Your task to perform on an android device: Open privacy settings Image 0: 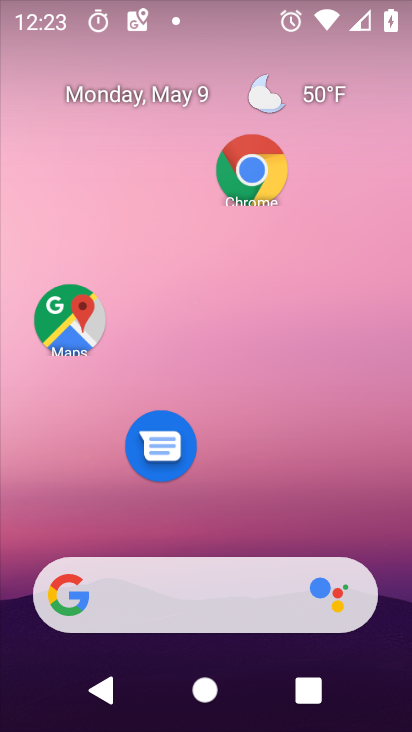
Step 0: click (239, 170)
Your task to perform on an android device: Open privacy settings Image 1: 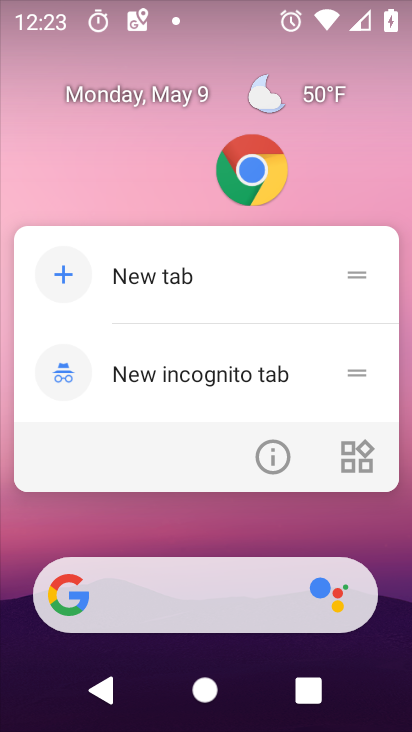
Step 1: click (239, 170)
Your task to perform on an android device: Open privacy settings Image 2: 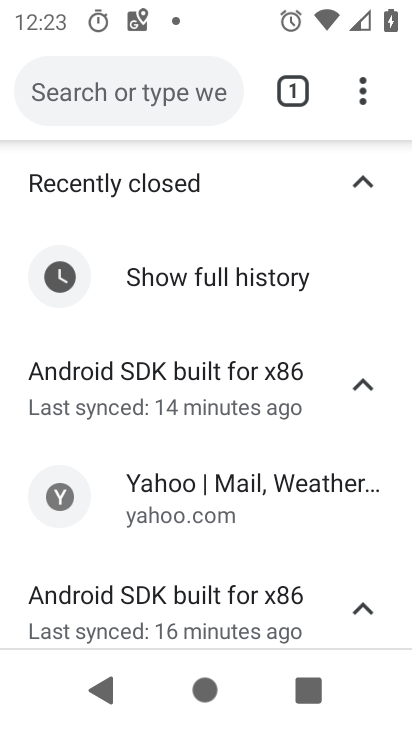
Step 2: click (344, 98)
Your task to perform on an android device: Open privacy settings Image 3: 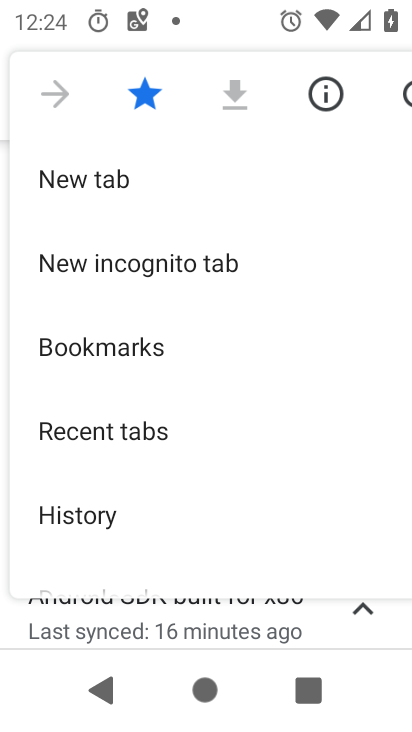
Step 3: drag from (129, 538) to (108, 368)
Your task to perform on an android device: Open privacy settings Image 4: 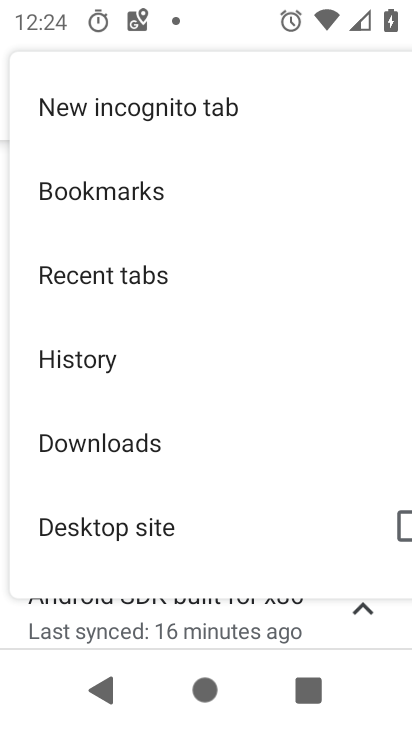
Step 4: drag from (189, 534) to (201, 271)
Your task to perform on an android device: Open privacy settings Image 5: 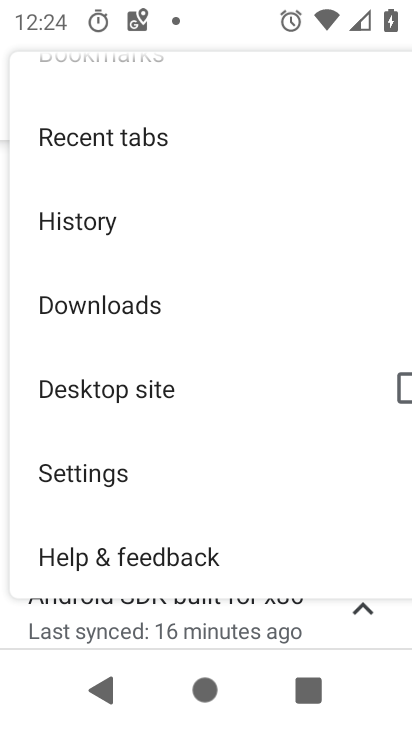
Step 5: click (101, 465)
Your task to perform on an android device: Open privacy settings Image 6: 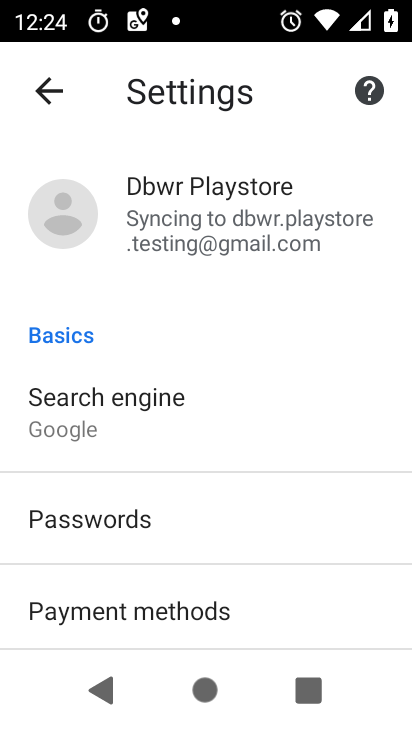
Step 6: drag from (197, 594) to (159, 344)
Your task to perform on an android device: Open privacy settings Image 7: 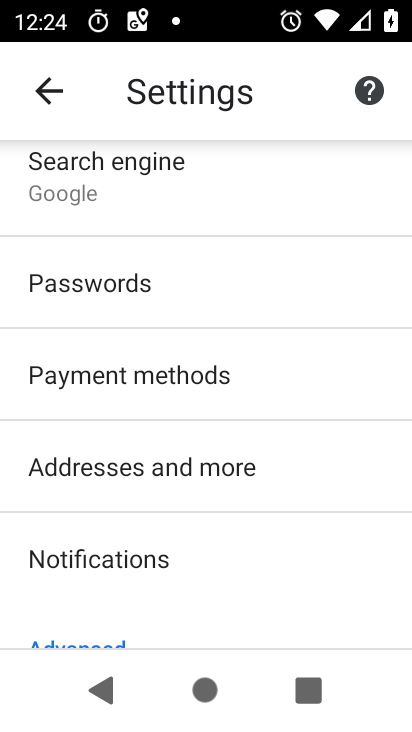
Step 7: drag from (158, 595) to (148, 440)
Your task to perform on an android device: Open privacy settings Image 8: 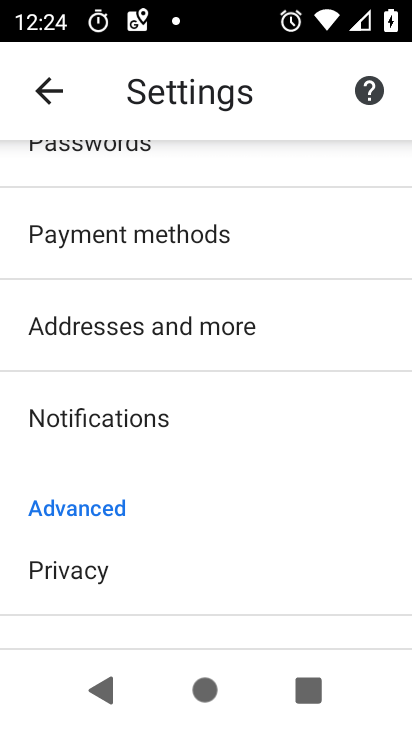
Step 8: click (171, 583)
Your task to perform on an android device: Open privacy settings Image 9: 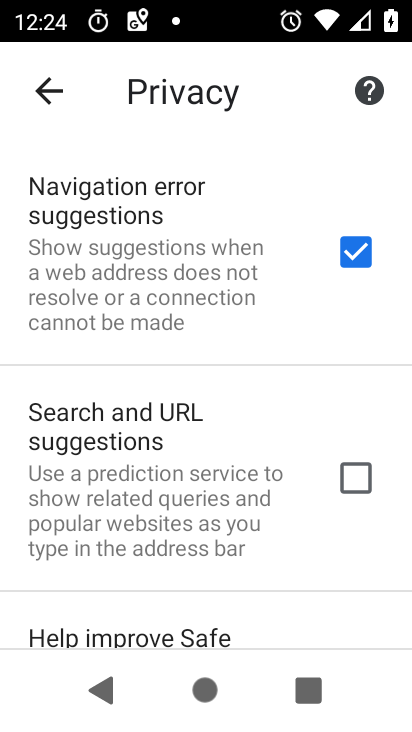
Step 9: task complete